Your task to perform on an android device: Check the news Image 0: 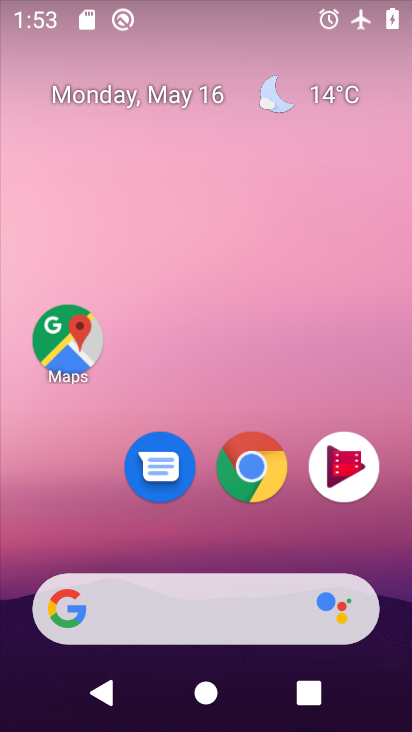
Step 0: click (234, 462)
Your task to perform on an android device: Check the news Image 1: 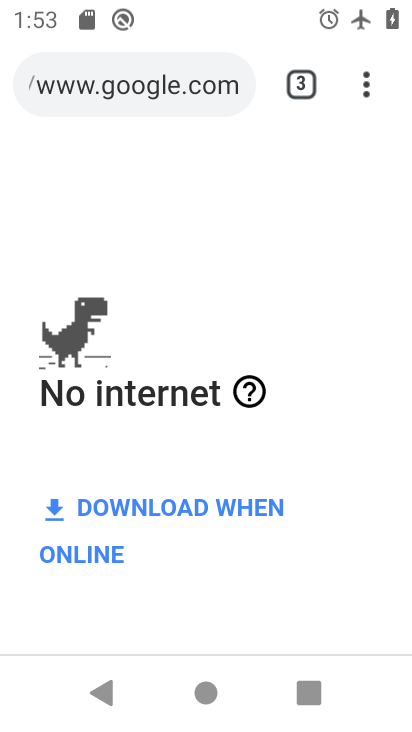
Step 1: click (346, 78)
Your task to perform on an android device: Check the news Image 2: 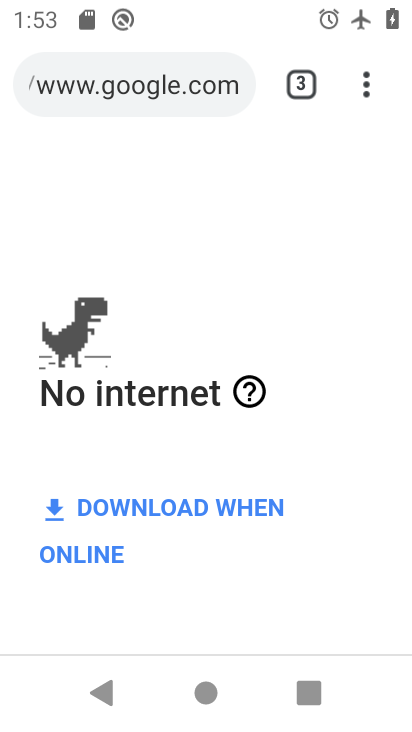
Step 2: click (346, 86)
Your task to perform on an android device: Check the news Image 3: 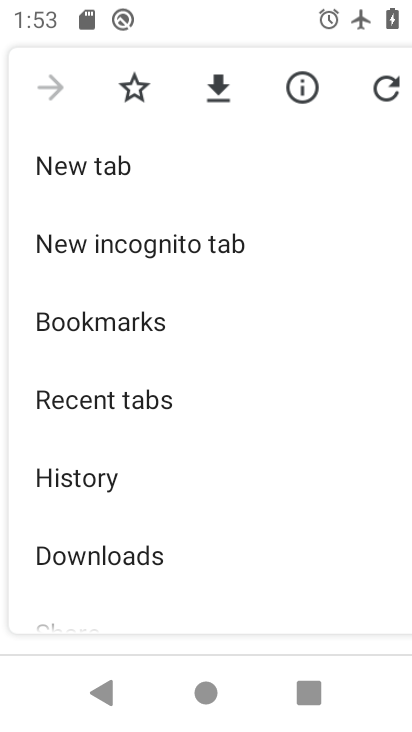
Step 3: click (126, 159)
Your task to perform on an android device: Check the news Image 4: 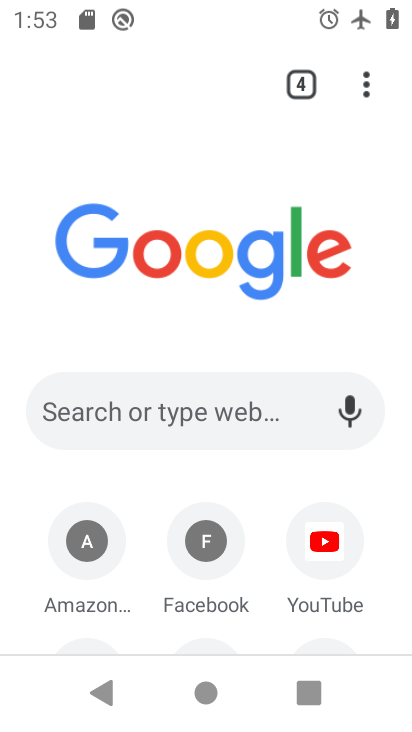
Step 4: click (171, 402)
Your task to perform on an android device: Check the news Image 5: 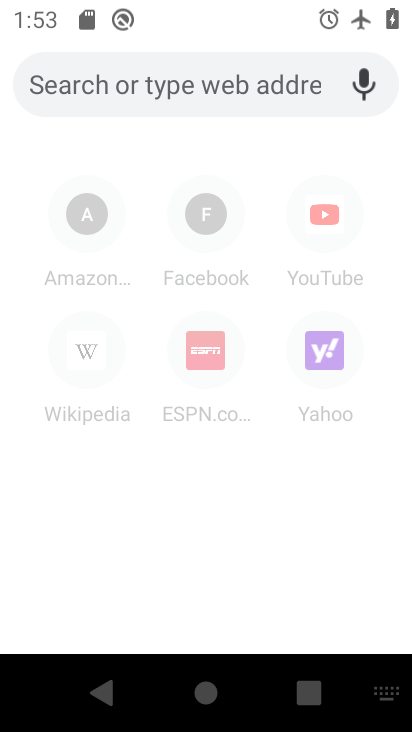
Step 5: type "Check the news"
Your task to perform on an android device: Check the news Image 6: 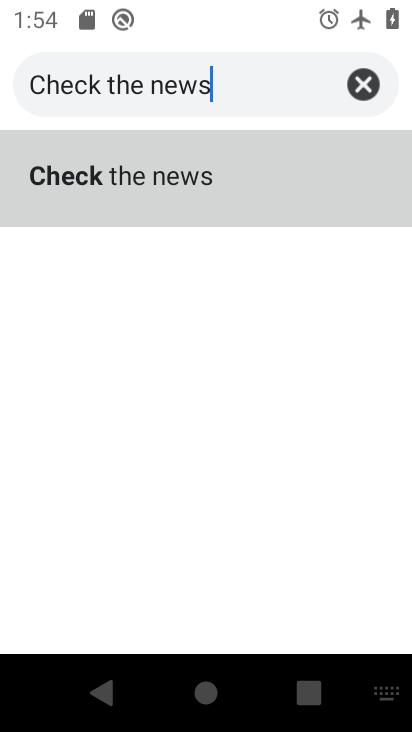
Step 6: click (65, 167)
Your task to perform on an android device: Check the news Image 7: 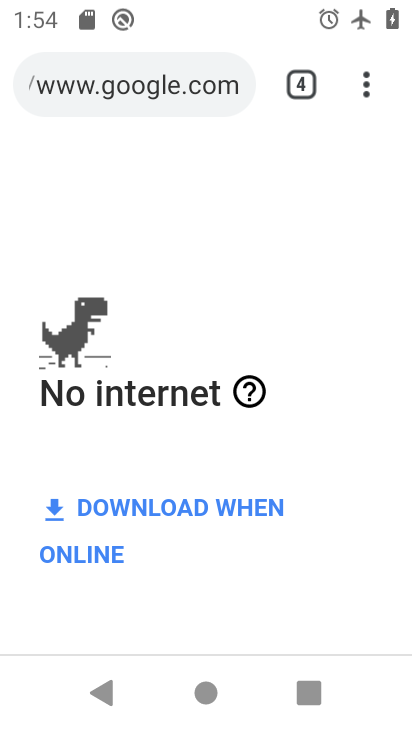
Step 7: task complete